Your task to perform on an android device: clear history in the chrome app Image 0: 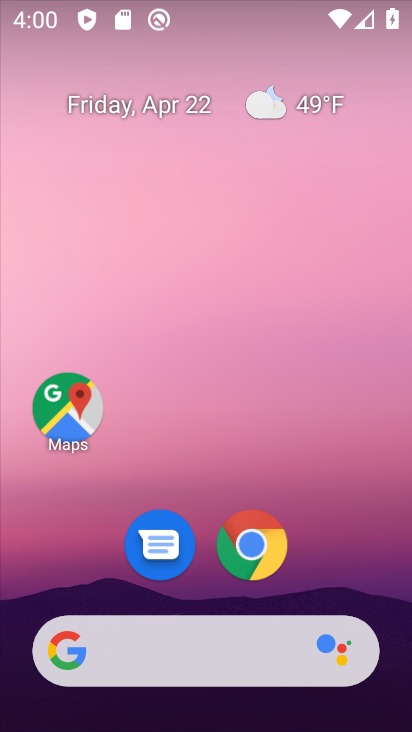
Step 0: click (261, 564)
Your task to perform on an android device: clear history in the chrome app Image 1: 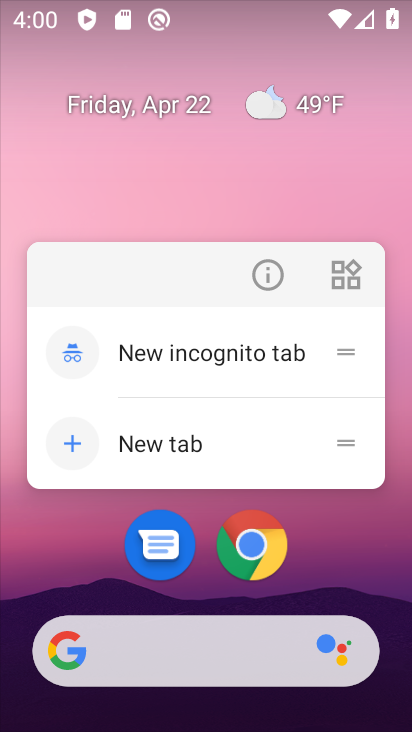
Step 1: click (258, 567)
Your task to perform on an android device: clear history in the chrome app Image 2: 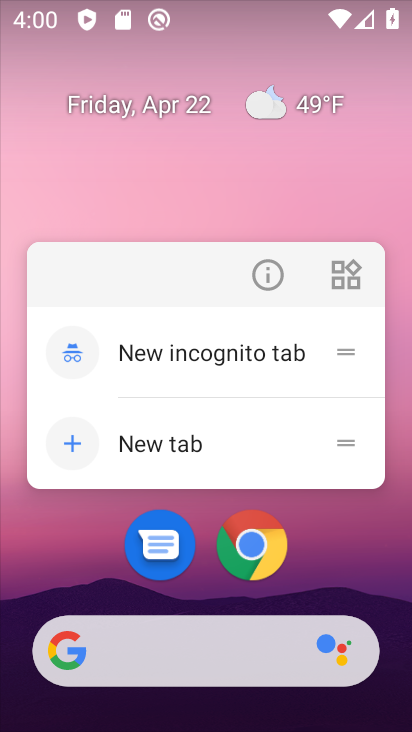
Step 2: click (258, 567)
Your task to perform on an android device: clear history in the chrome app Image 3: 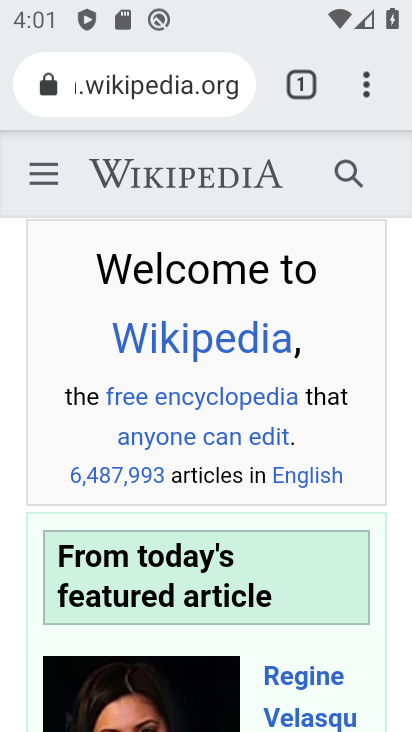
Step 3: drag from (368, 87) to (49, 477)
Your task to perform on an android device: clear history in the chrome app Image 4: 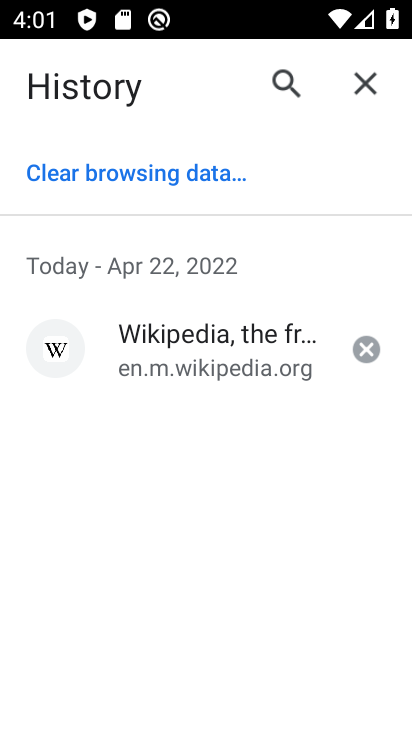
Step 4: click (50, 164)
Your task to perform on an android device: clear history in the chrome app Image 5: 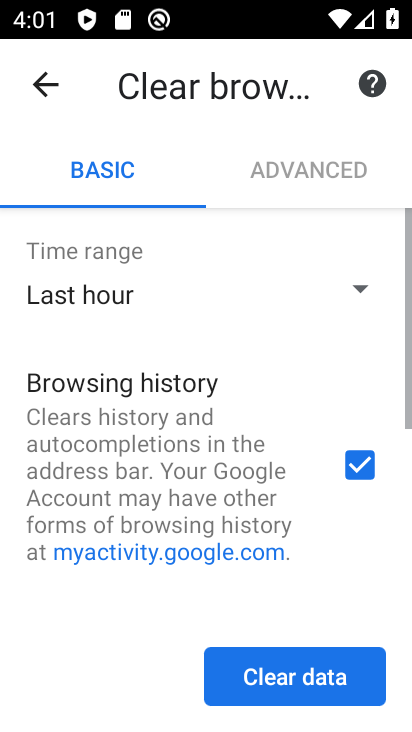
Step 5: drag from (164, 510) to (229, 253)
Your task to perform on an android device: clear history in the chrome app Image 6: 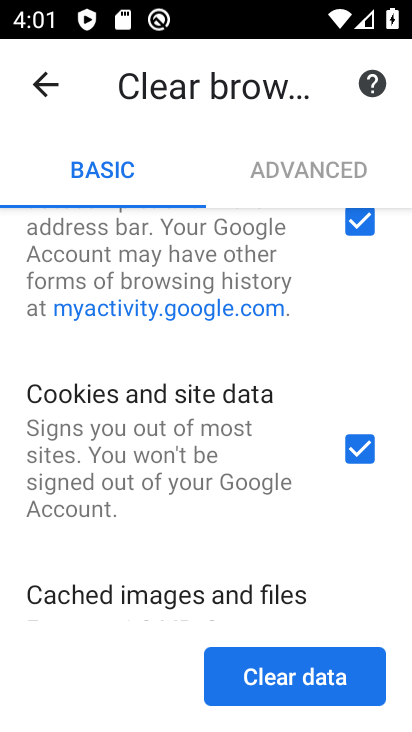
Step 6: drag from (162, 520) to (174, 216)
Your task to perform on an android device: clear history in the chrome app Image 7: 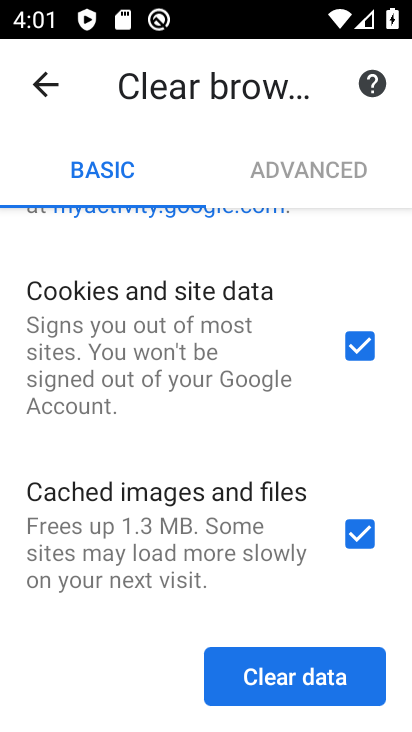
Step 7: drag from (163, 415) to (112, 587)
Your task to perform on an android device: clear history in the chrome app Image 8: 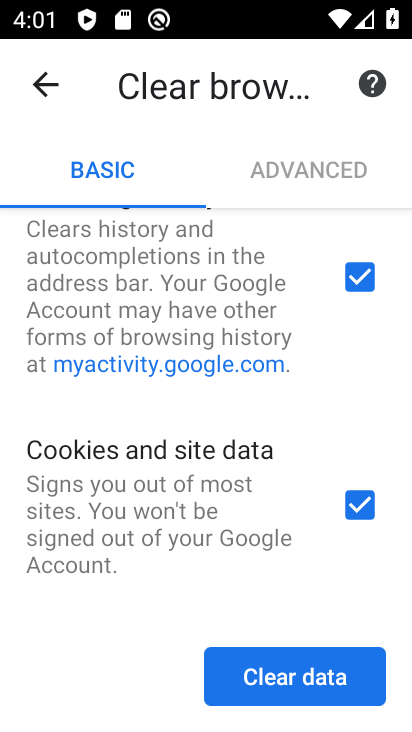
Step 8: drag from (130, 377) to (96, 563)
Your task to perform on an android device: clear history in the chrome app Image 9: 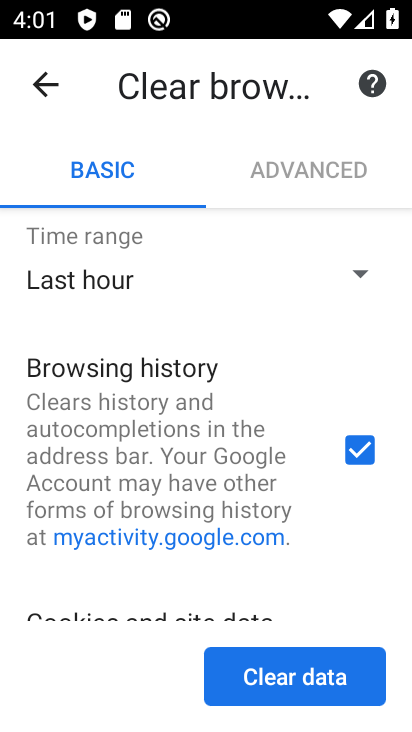
Step 9: drag from (131, 392) to (135, 611)
Your task to perform on an android device: clear history in the chrome app Image 10: 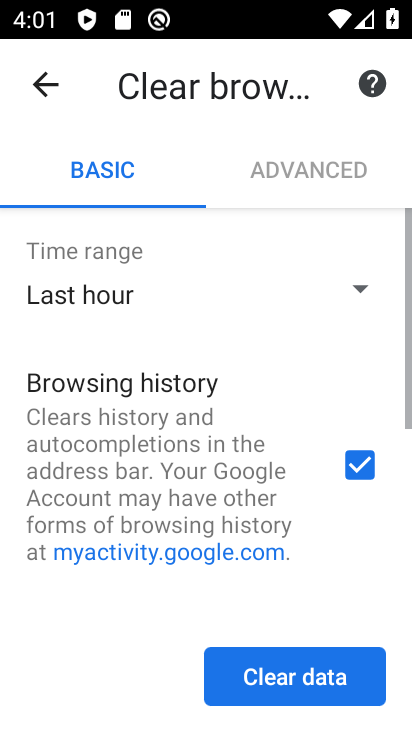
Step 10: drag from (175, 434) to (166, 532)
Your task to perform on an android device: clear history in the chrome app Image 11: 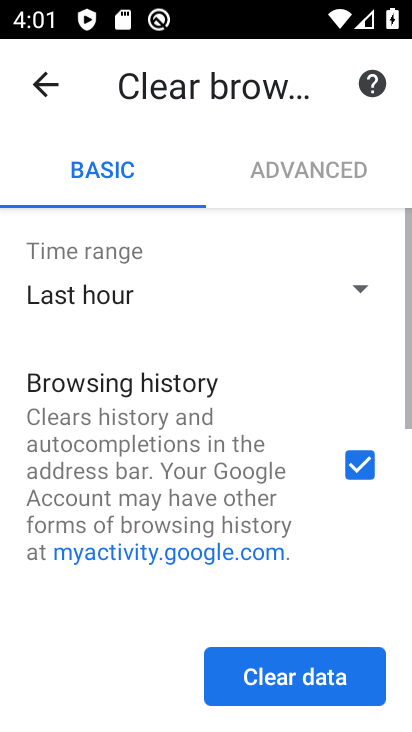
Step 11: drag from (212, 488) to (192, 245)
Your task to perform on an android device: clear history in the chrome app Image 12: 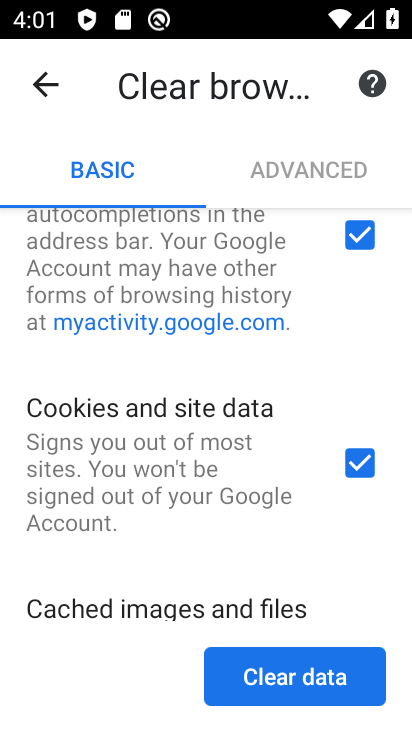
Step 12: click (354, 464)
Your task to perform on an android device: clear history in the chrome app Image 13: 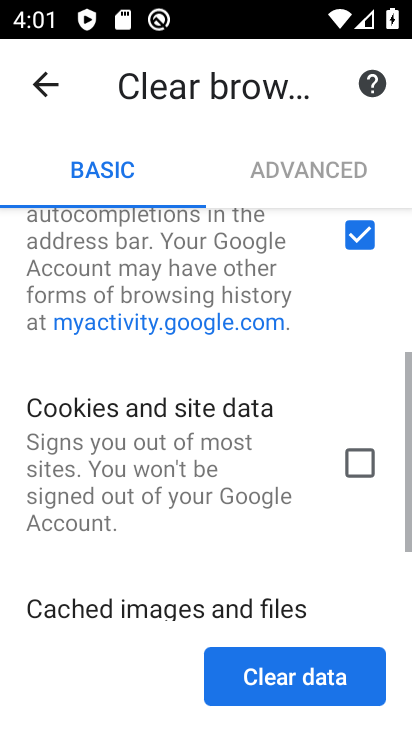
Step 13: drag from (211, 537) to (151, 256)
Your task to perform on an android device: clear history in the chrome app Image 14: 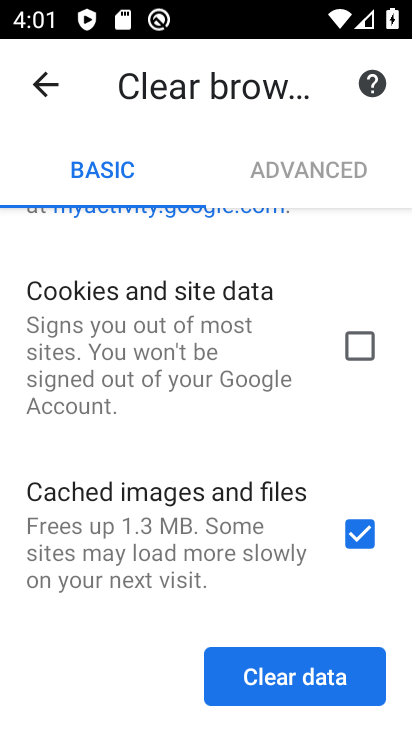
Step 14: click (361, 536)
Your task to perform on an android device: clear history in the chrome app Image 15: 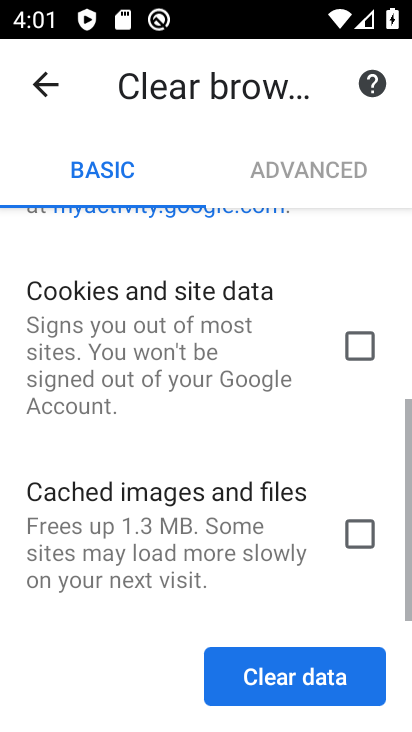
Step 15: click (331, 685)
Your task to perform on an android device: clear history in the chrome app Image 16: 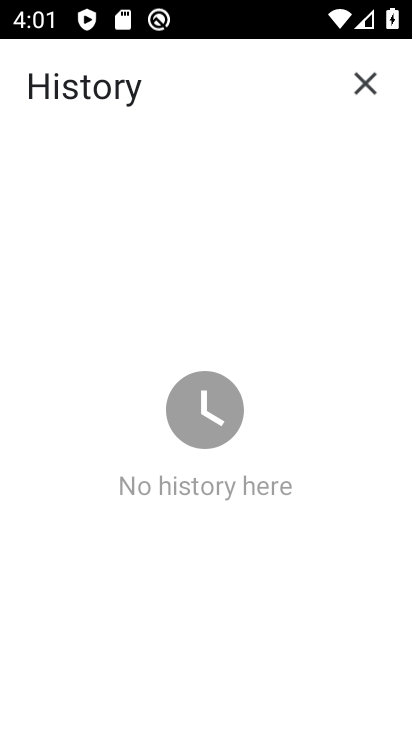
Step 16: task complete